Your task to perform on an android device: Is it going to rain tomorrow? Image 0: 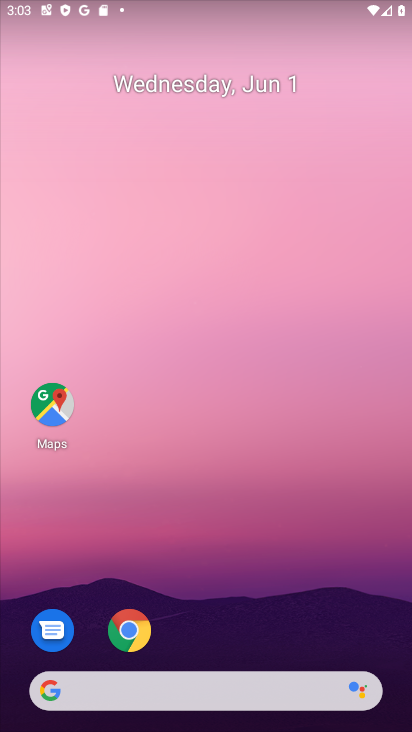
Step 0: click (184, 687)
Your task to perform on an android device: Is it going to rain tomorrow? Image 1: 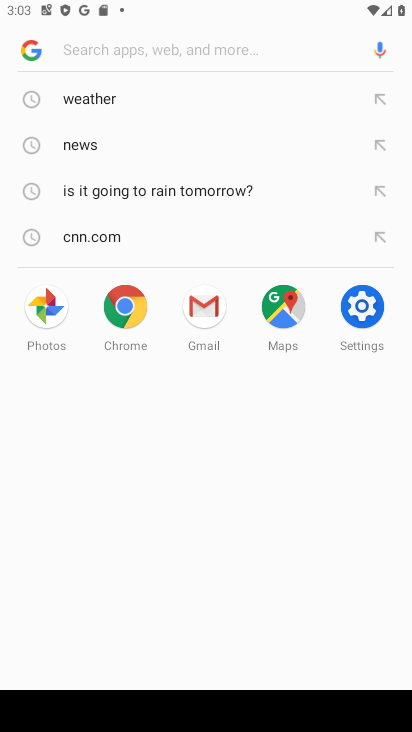
Step 1: click (87, 101)
Your task to perform on an android device: Is it going to rain tomorrow? Image 2: 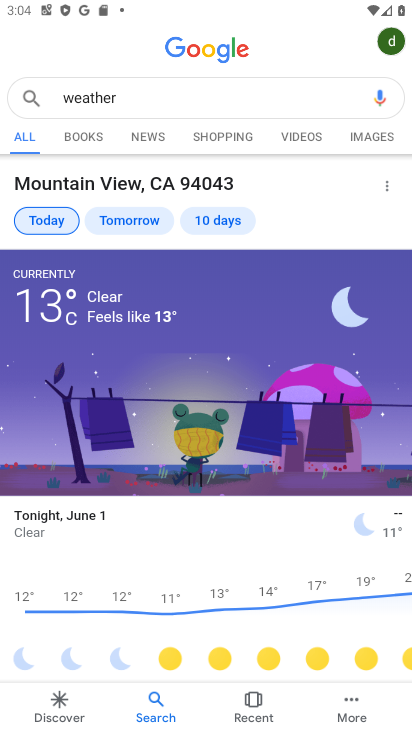
Step 2: click (115, 214)
Your task to perform on an android device: Is it going to rain tomorrow? Image 3: 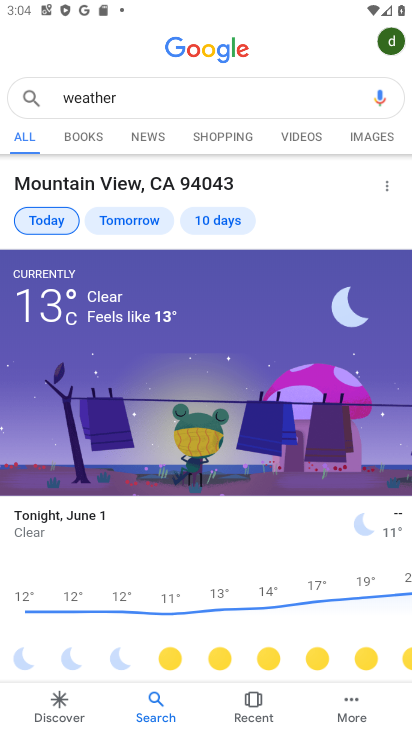
Step 3: click (121, 218)
Your task to perform on an android device: Is it going to rain tomorrow? Image 4: 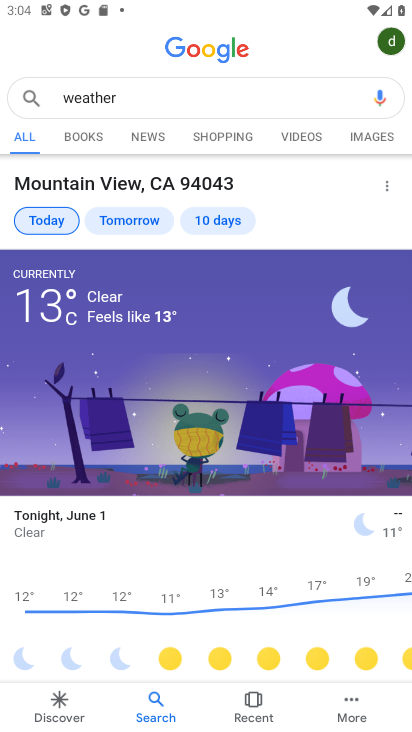
Step 4: click (121, 218)
Your task to perform on an android device: Is it going to rain tomorrow? Image 5: 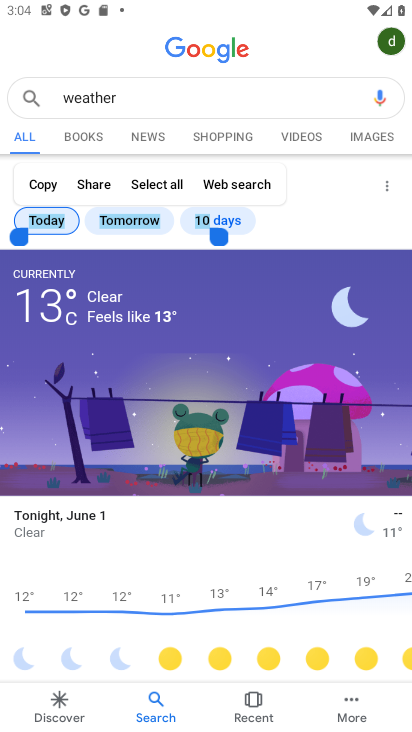
Step 5: task complete